Your task to perform on an android device: Go to network settings Image 0: 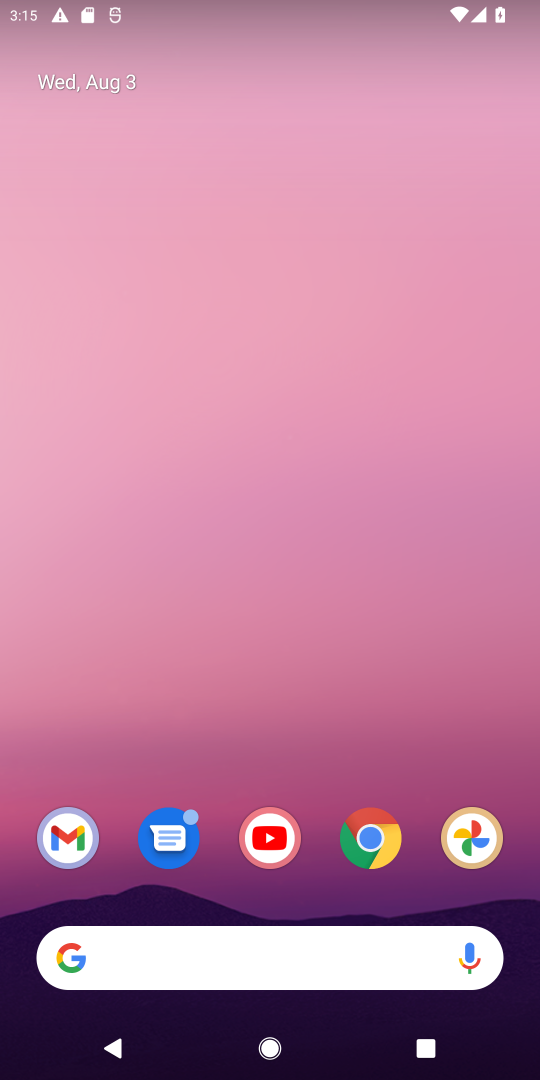
Step 0: drag from (290, 848) to (280, 239)
Your task to perform on an android device: Go to network settings Image 1: 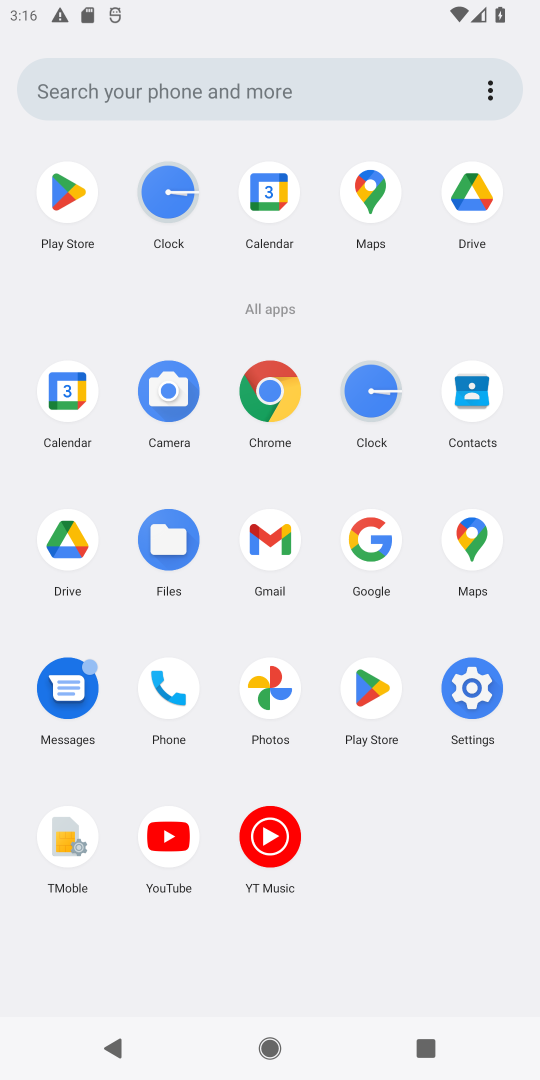
Step 1: click (467, 679)
Your task to perform on an android device: Go to network settings Image 2: 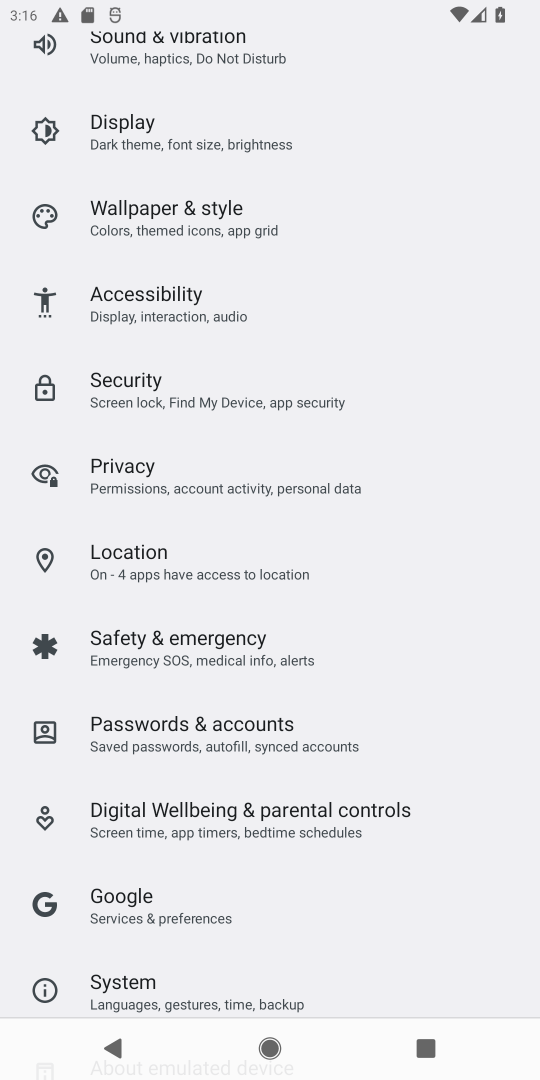
Step 2: drag from (293, 336) to (271, 875)
Your task to perform on an android device: Go to network settings Image 3: 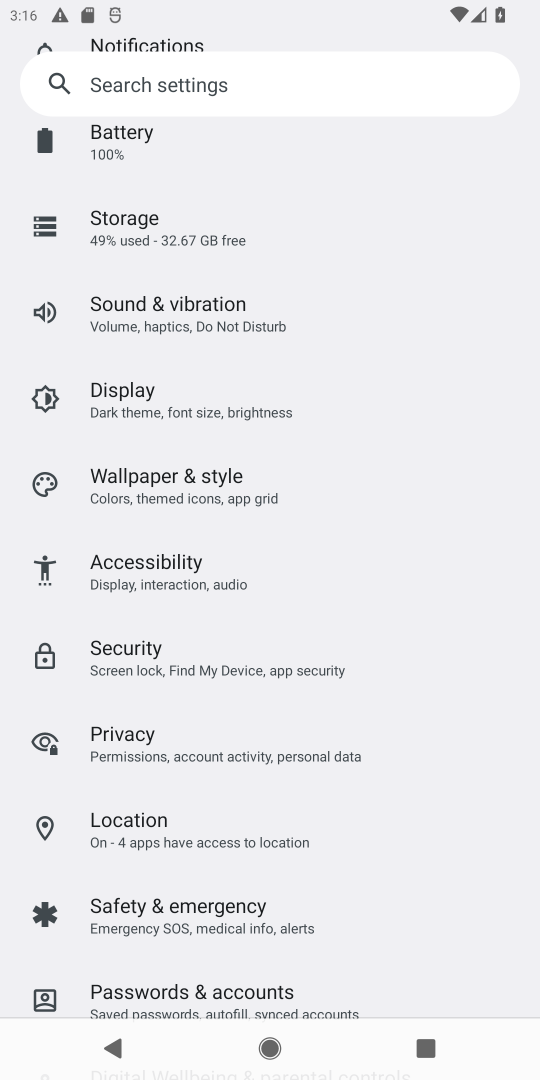
Step 3: drag from (181, 345) to (176, 785)
Your task to perform on an android device: Go to network settings Image 4: 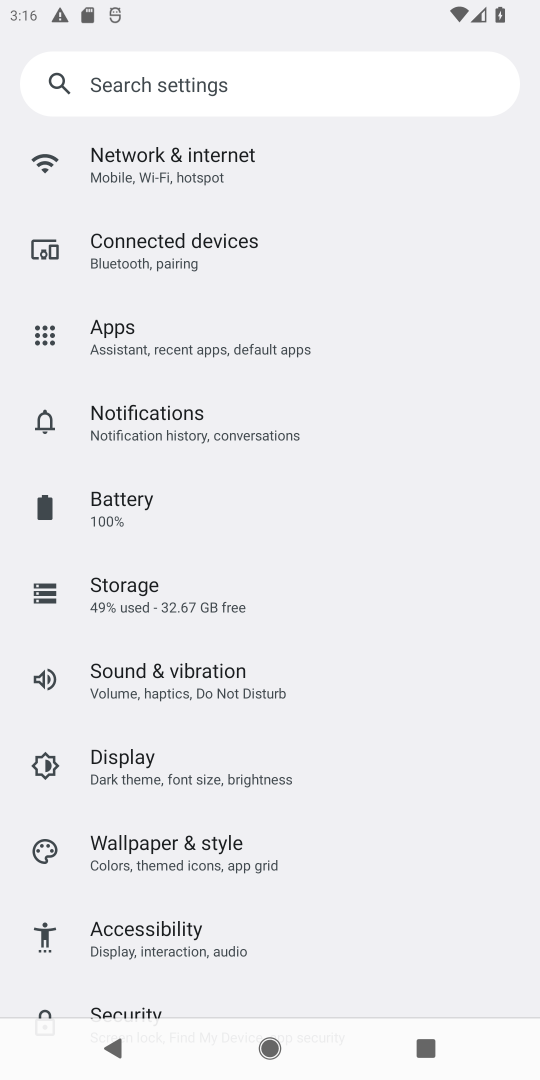
Step 4: click (169, 175)
Your task to perform on an android device: Go to network settings Image 5: 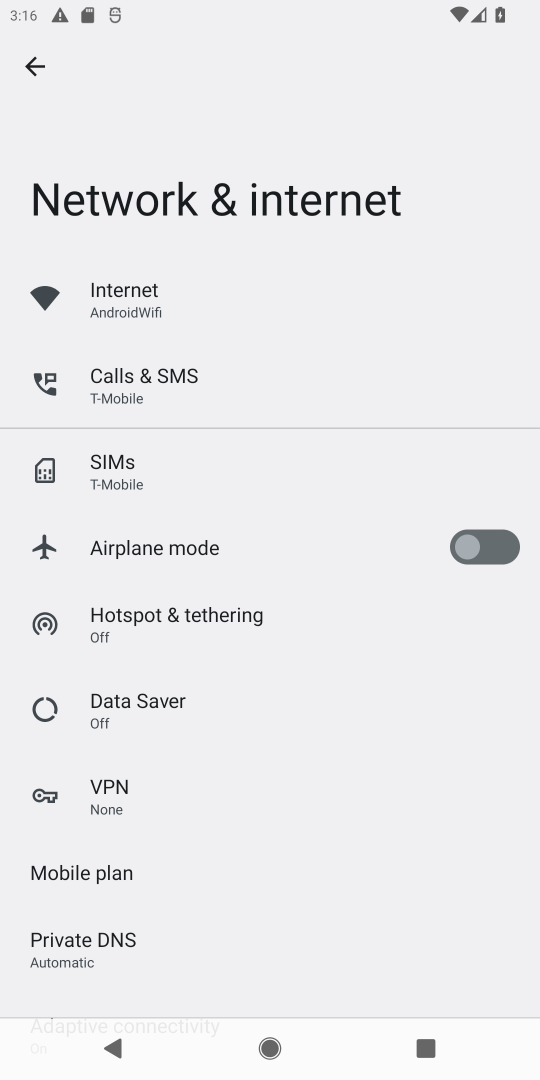
Step 5: task complete